Your task to perform on an android device: choose inbox layout in the gmail app Image 0: 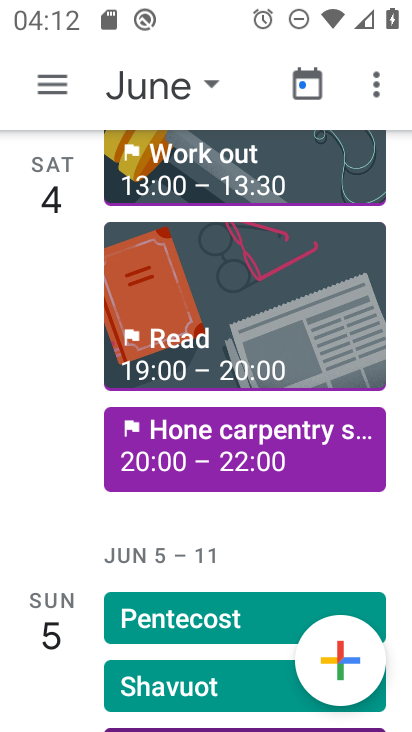
Step 0: press home button
Your task to perform on an android device: choose inbox layout in the gmail app Image 1: 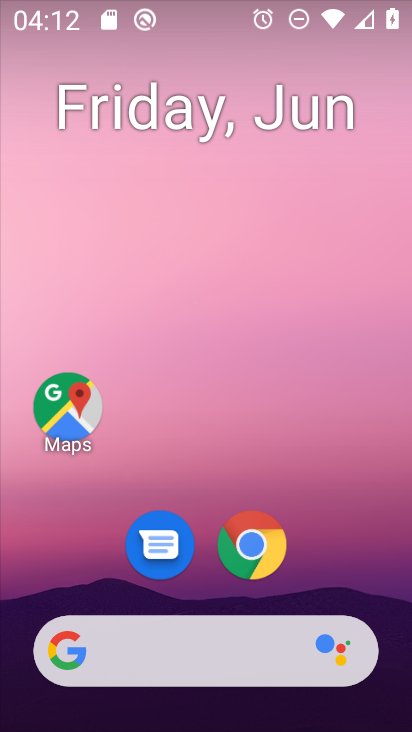
Step 1: drag from (341, 569) to (349, 36)
Your task to perform on an android device: choose inbox layout in the gmail app Image 2: 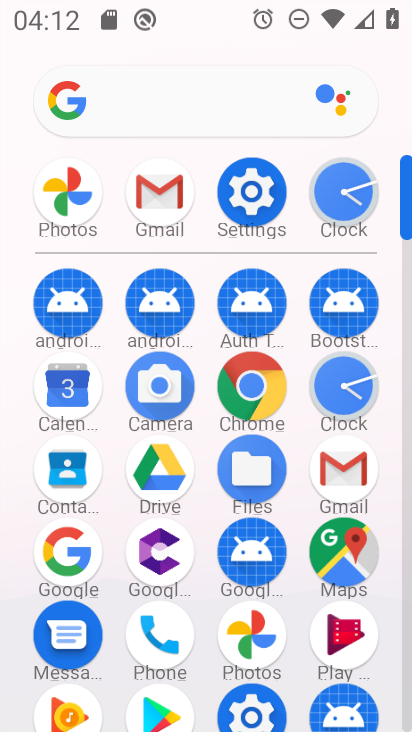
Step 2: click (356, 470)
Your task to perform on an android device: choose inbox layout in the gmail app Image 3: 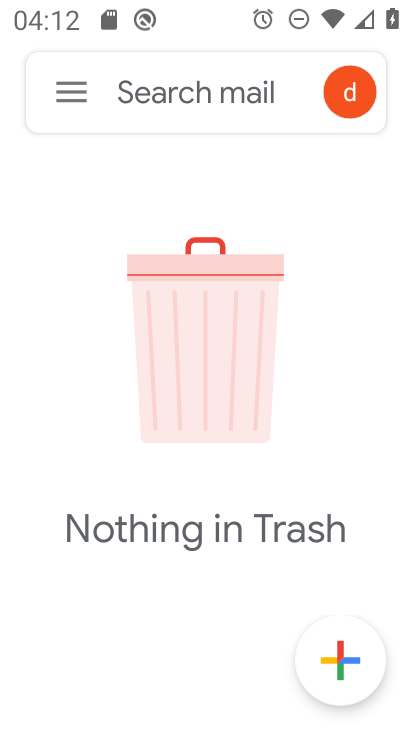
Step 3: click (73, 101)
Your task to perform on an android device: choose inbox layout in the gmail app Image 4: 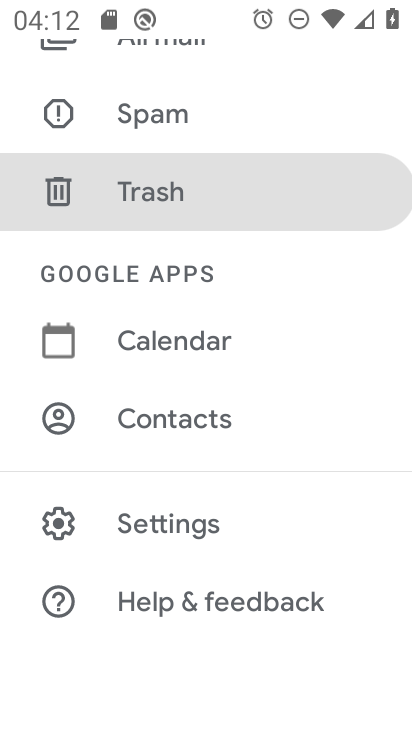
Step 4: drag from (252, 218) to (234, 50)
Your task to perform on an android device: choose inbox layout in the gmail app Image 5: 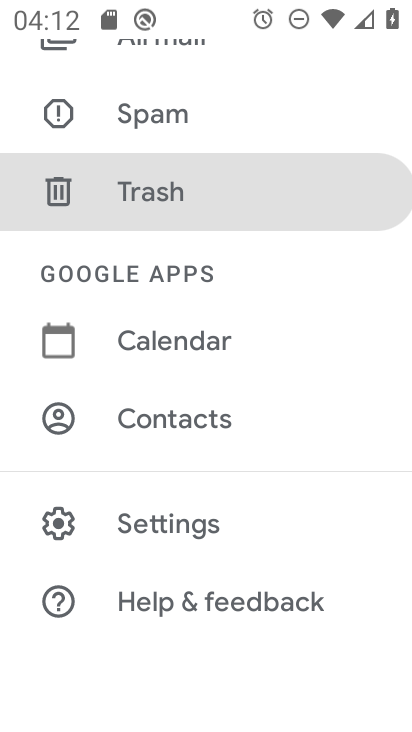
Step 5: click (196, 515)
Your task to perform on an android device: choose inbox layout in the gmail app Image 6: 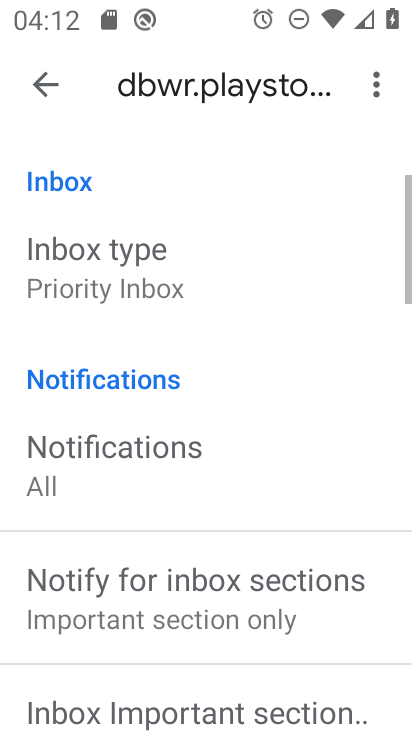
Step 6: click (227, 304)
Your task to perform on an android device: choose inbox layout in the gmail app Image 7: 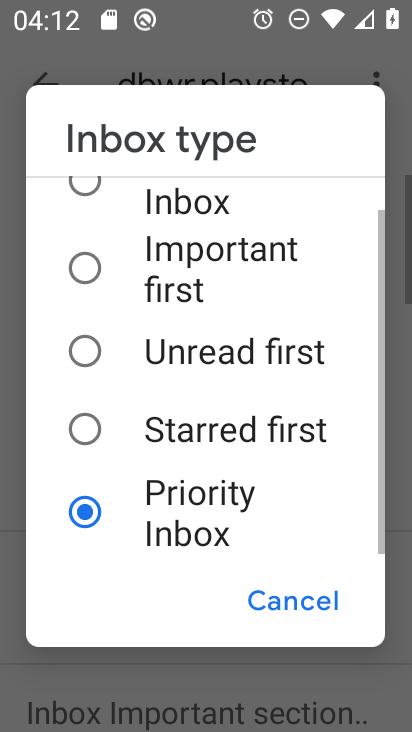
Step 7: drag from (227, 213) to (274, 474)
Your task to perform on an android device: choose inbox layout in the gmail app Image 8: 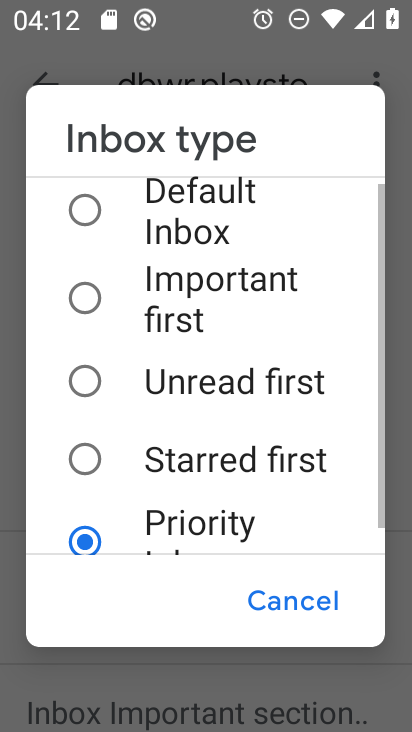
Step 8: click (217, 198)
Your task to perform on an android device: choose inbox layout in the gmail app Image 9: 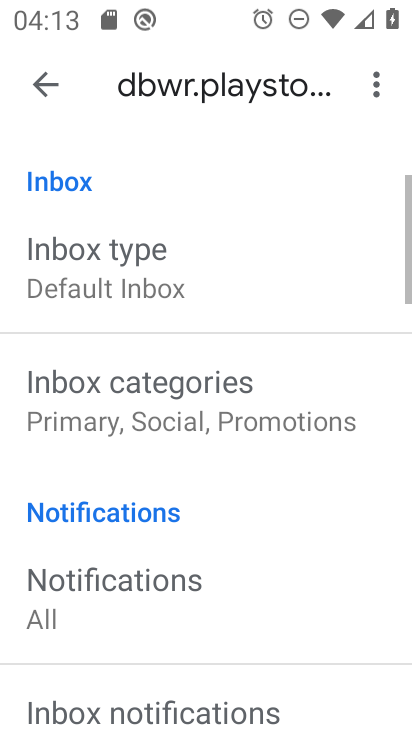
Step 9: task complete